Your task to perform on an android device: turn on location history Image 0: 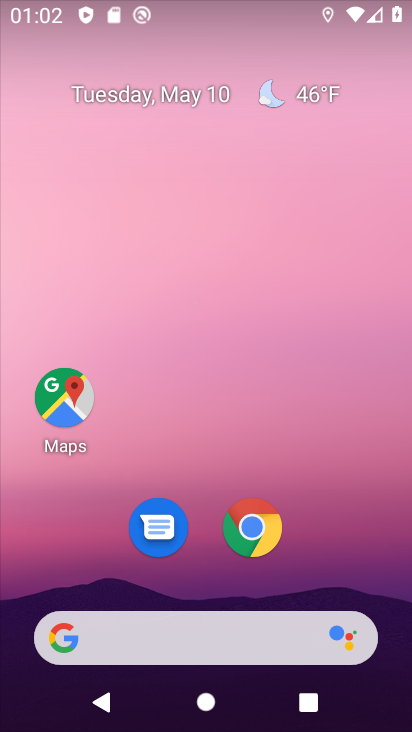
Step 0: drag from (376, 481) to (182, 201)
Your task to perform on an android device: turn on location history Image 1: 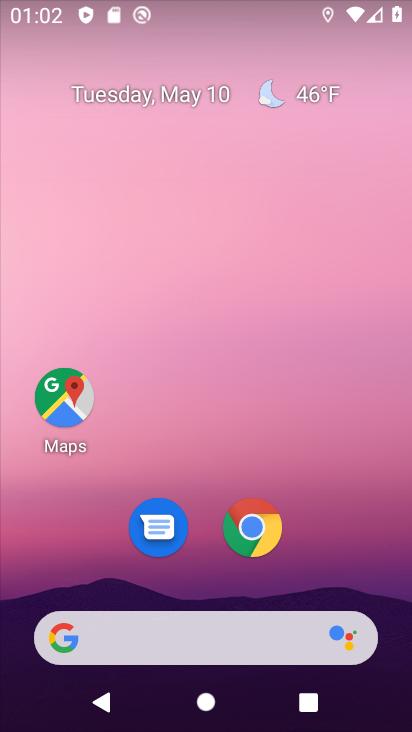
Step 1: drag from (331, 547) to (332, 119)
Your task to perform on an android device: turn on location history Image 2: 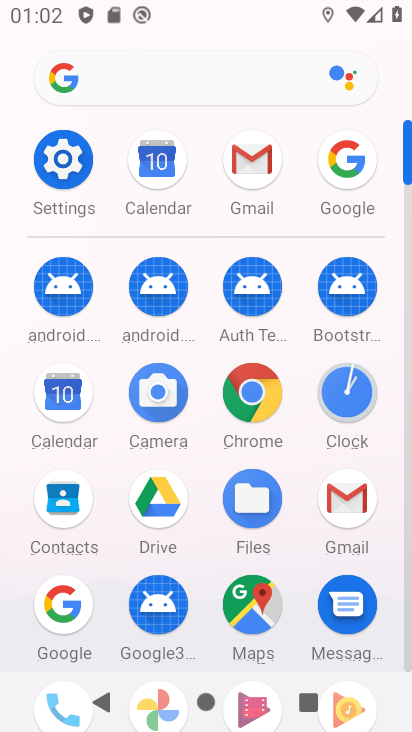
Step 2: click (65, 176)
Your task to perform on an android device: turn on location history Image 3: 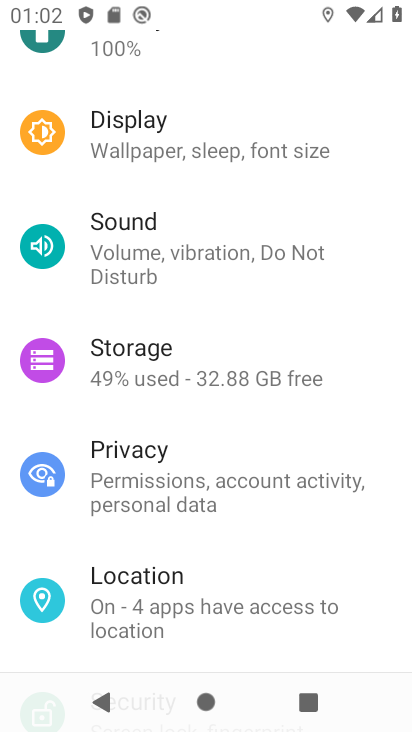
Step 3: click (173, 612)
Your task to perform on an android device: turn on location history Image 4: 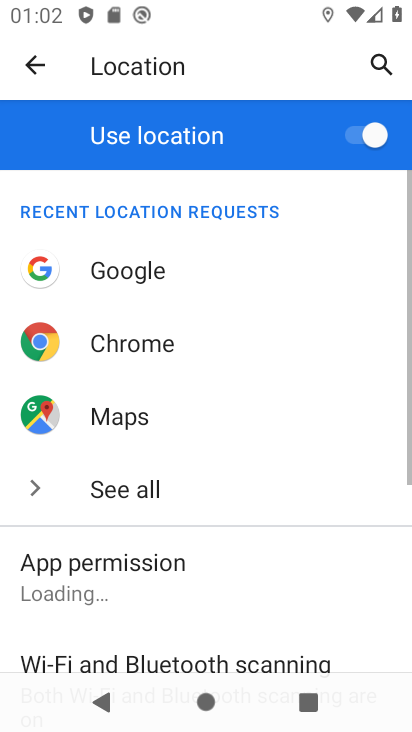
Step 4: drag from (173, 612) to (185, 408)
Your task to perform on an android device: turn on location history Image 5: 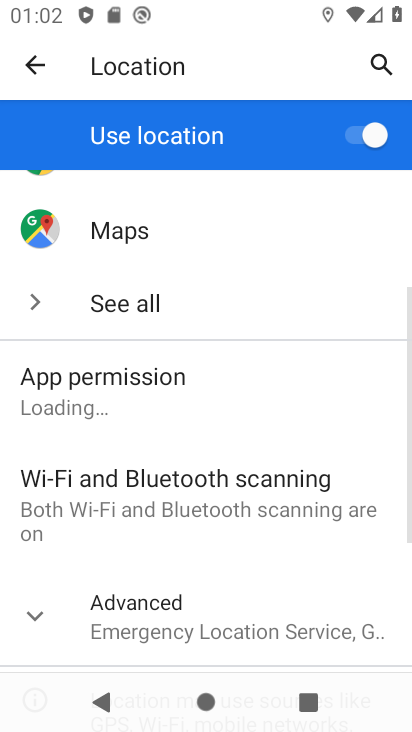
Step 5: click (160, 631)
Your task to perform on an android device: turn on location history Image 6: 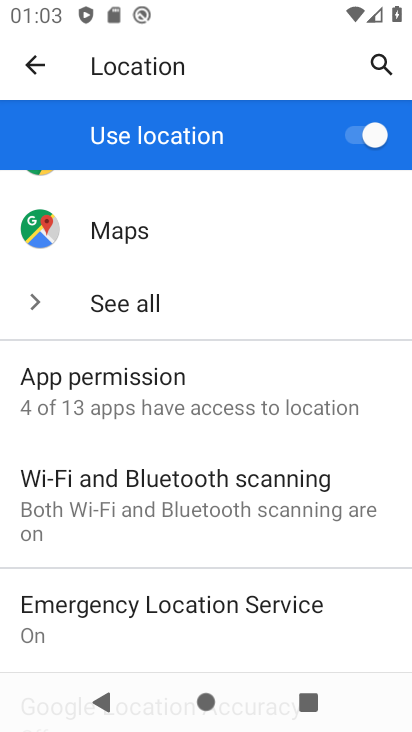
Step 6: drag from (164, 558) to (198, 143)
Your task to perform on an android device: turn on location history Image 7: 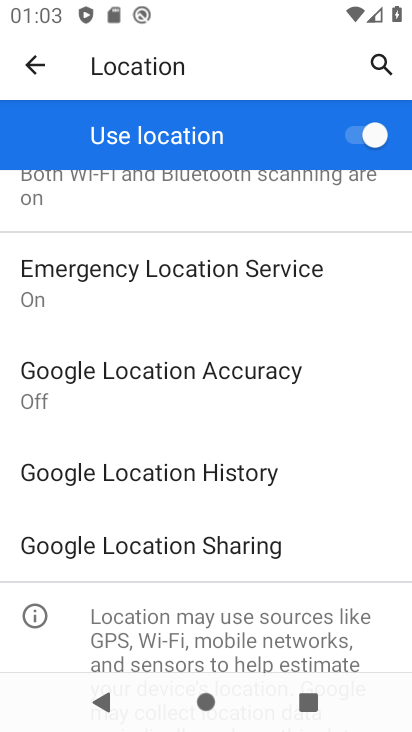
Step 7: click (170, 477)
Your task to perform on an android device: turn on location history Image 8: 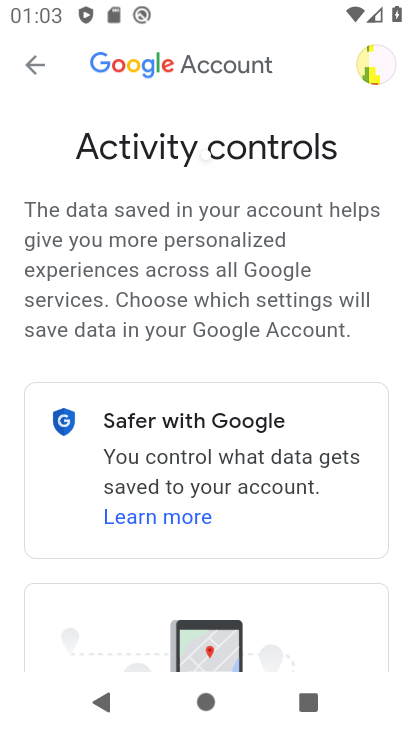
Step 8: task complete